Your task to perform on an android device: Open the Play Movies app and select the watchlist tab. Image 0: 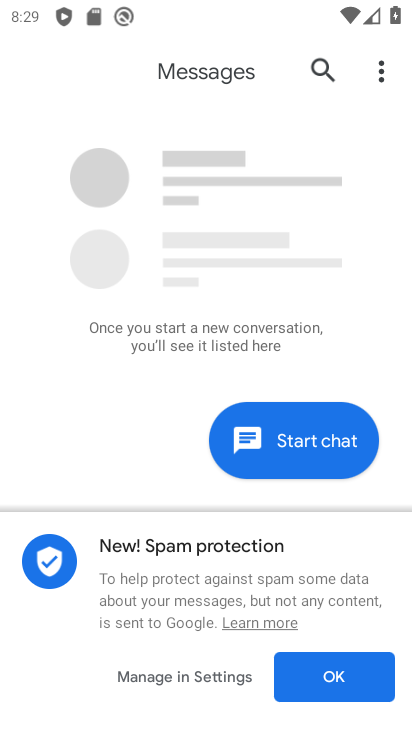
Step 0: press home button
Your task to perform on an android device: Open the Play Movies app and select the watchlist tab. Image 1: 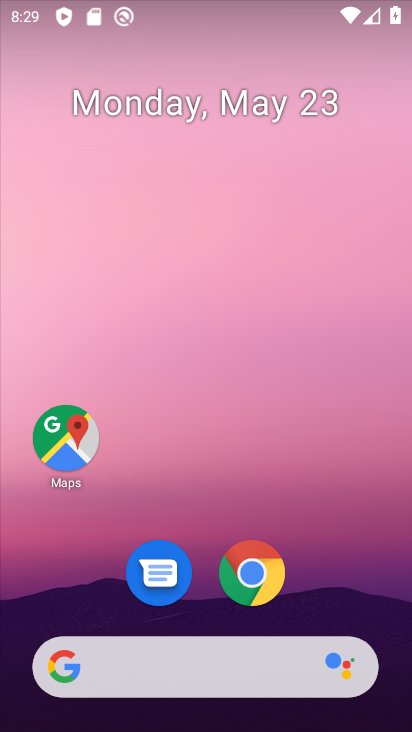
Step 1: drag from (241, 477) to (310, 7)
Your task to perform on an android device: Open the Play Movies app and select the watchlist tab. Image 2: 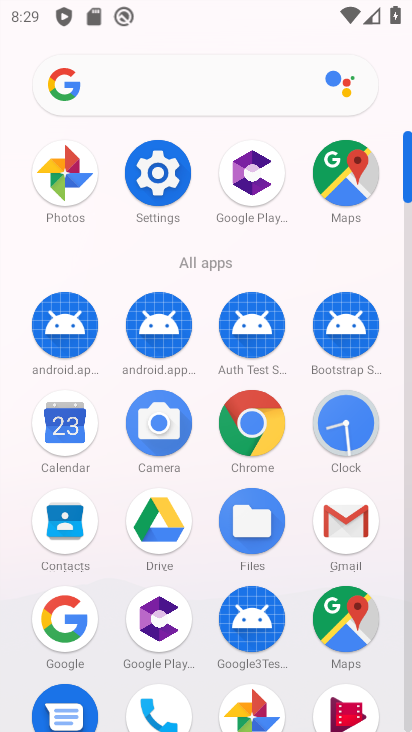
Step 2: drag from (275, 473) to (303, 221)
Your task to perform on an android device: Open the Play Movies app and select the watchlist tab. Image 3: 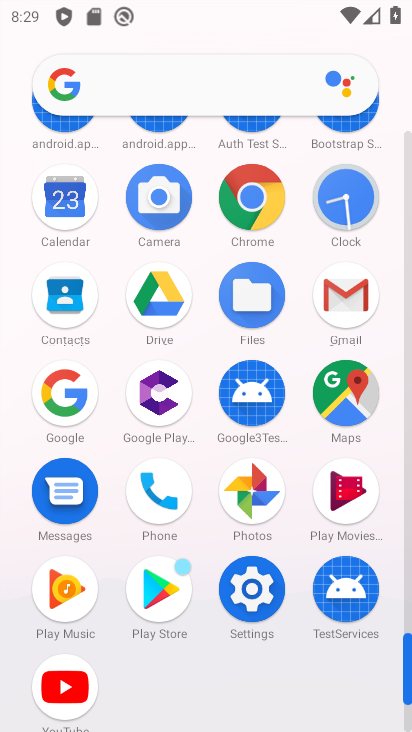
Step 3: click (344, 480)
Your task to perform on an android device: Open the Play Movies app and select the watchlist tab. Image 4: 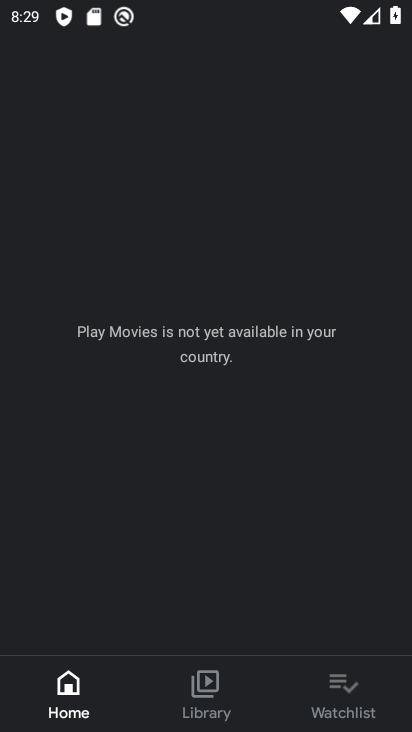
Step 4: click (342, 689)
Your task to perform on an android device: Open the Play Movies app and select the watchlist tab. Image 5: 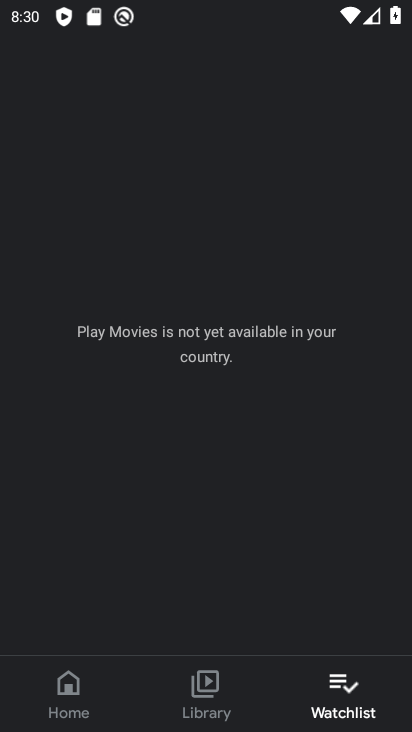
Step 5: task complete